Your task to perform on an android device: Turn off the flashlight Image 0: 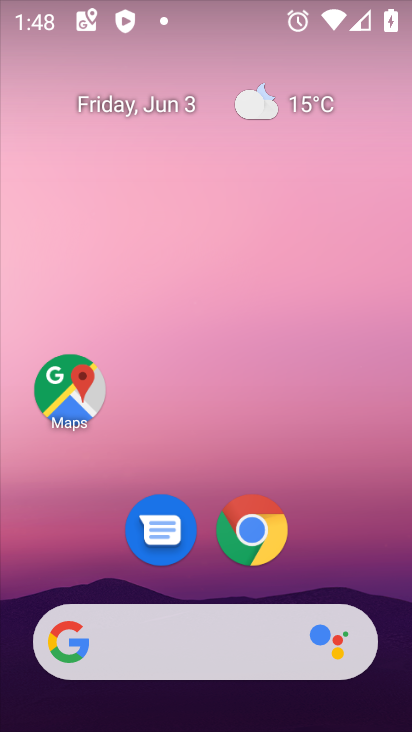
Step 0: drag from (264, 3) to (273, 528)
Your task to perform on an android device: Turn off the flashlight Image 1: 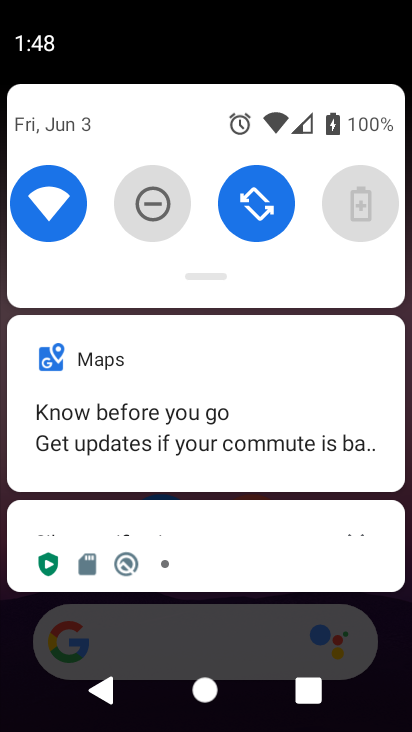
Step 1: task complete